Your task to perform on an android device: delete the emails in spam in the gmail app Image 0: 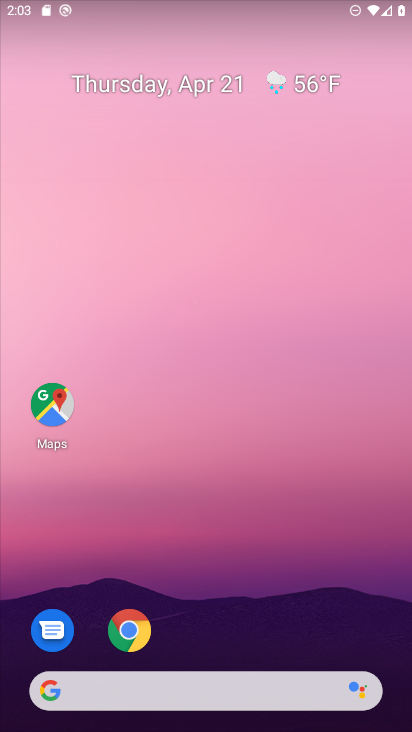
Step 0: click (137, 643)
Your task to perform on an android device: delete the emails in spam in the gmail app Image 1: 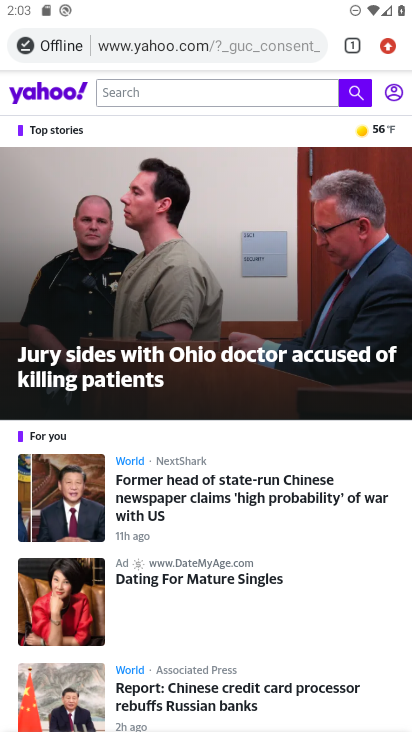
Step 1: press home button
Your task to perform on an android device: delete the emails in spam in the gmail app Image 2: 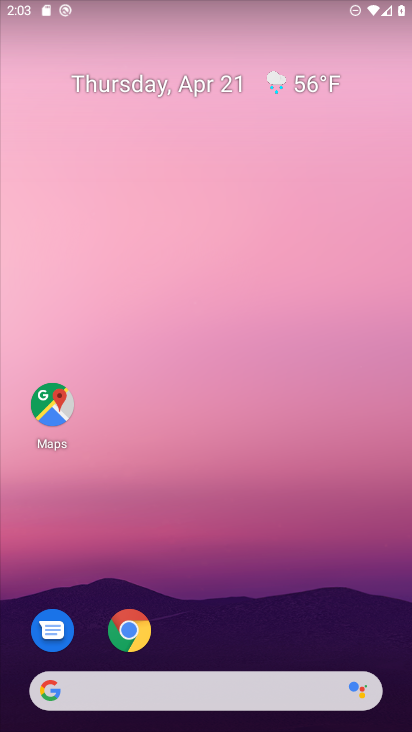
Step 2: drag from (211, 681) to (262, 59)
Your task to perform on an android device: delete the emails in spam in the gmail app Image 3: 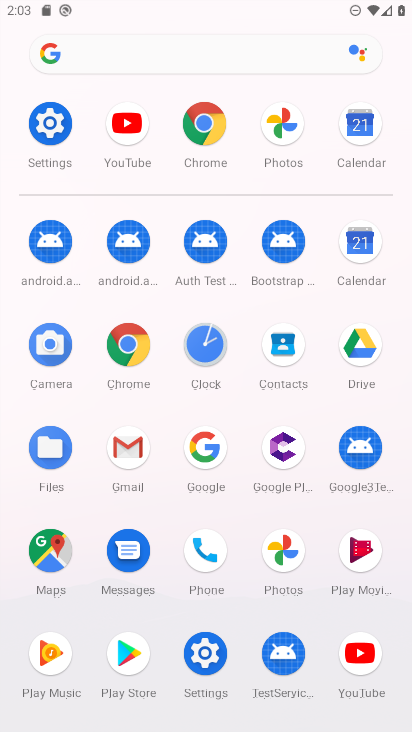
Step 3: click (112, 456)
Your task to perform on an android device: delete the emails in spam in the gmail app Image 4: 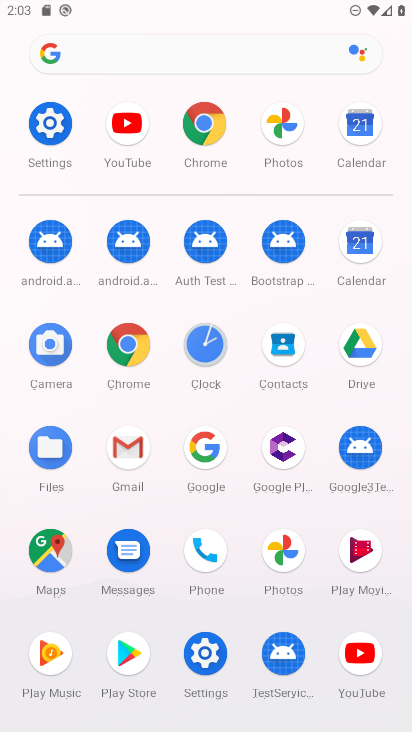
Step 4: click (112, 456)
Your task to perform on an android device: delete the emails in spam in the gmail app Image 5: 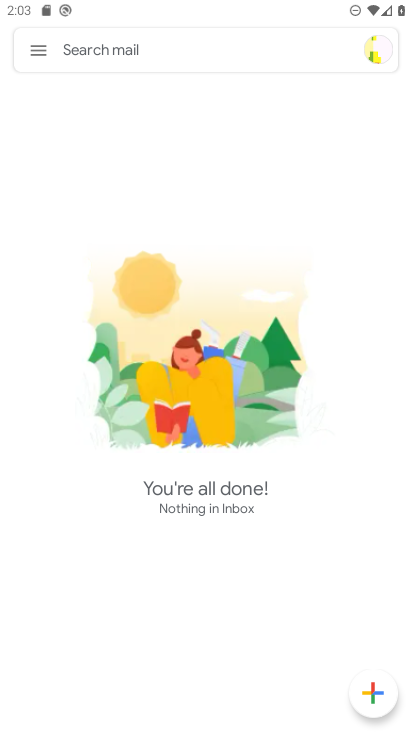
Step 5: click (32, 53)
Your task to perform on an android device: delete the emails in spam in the gmail app Image 6: 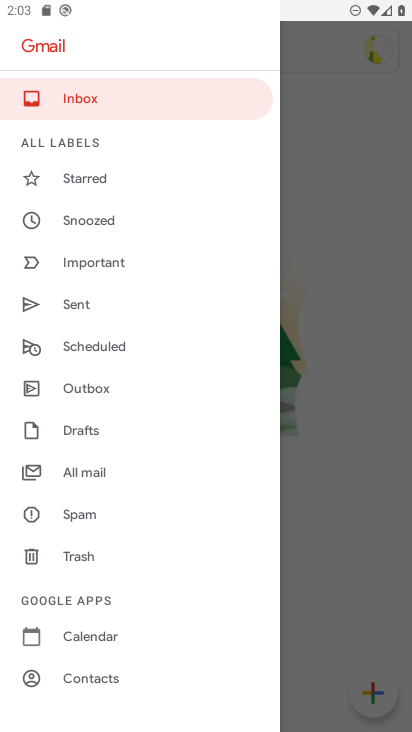
Step 6: click (101, 520)
Your task to perform on an android device: delete the emails in spam in the gmail app Image 7: 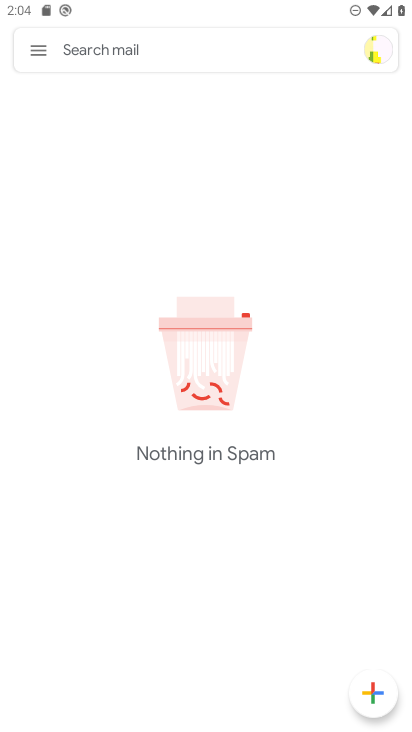
Step 7: task complete